Your task to perform on an android device: change the clock display to digital Image 0: 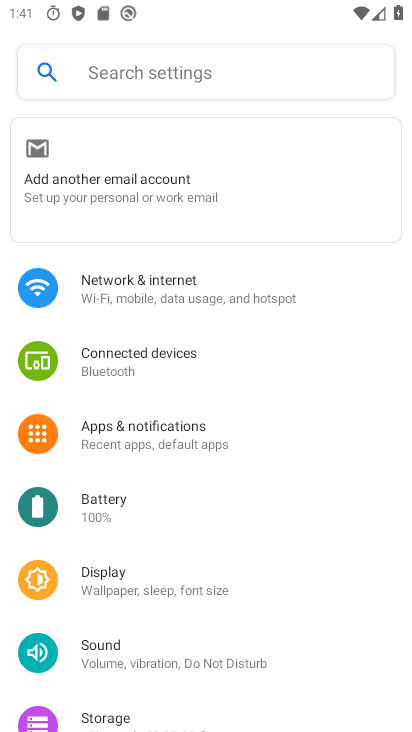
Step 0: press home button
Your task to perform on an android device: change the clock display to digital Image 1: 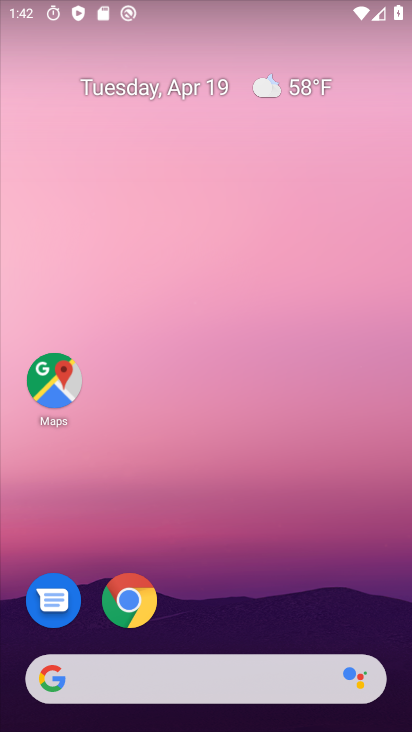
Step 1: drag from (276, 673) to (274, 291)
Your task to perform on an android device: change the clock display to digital Image 2: 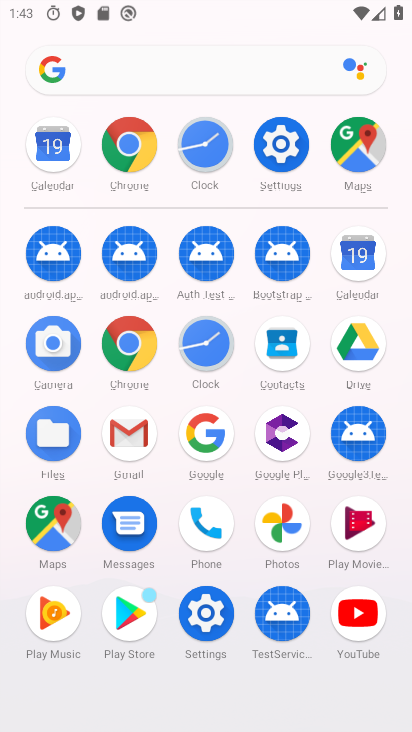
Step 2: click (215, 140)
Your task to perform on an android device: change the clock display to digital Image 3: 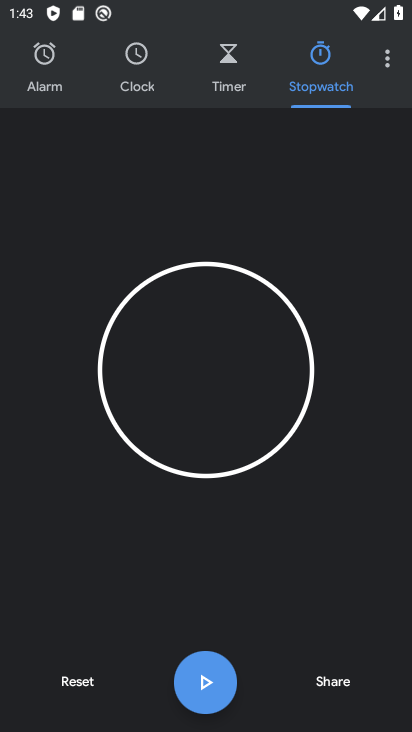
Step 3: click (402, 65)
Your task to perform on an android device: change the clock display to digital Image 4: 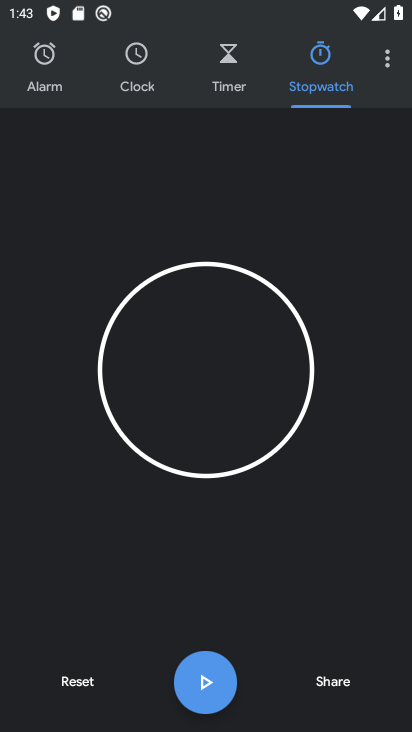
Step 4: click (391, 55)
Your task to perform on an android device: change the clock display to digital Image 5: 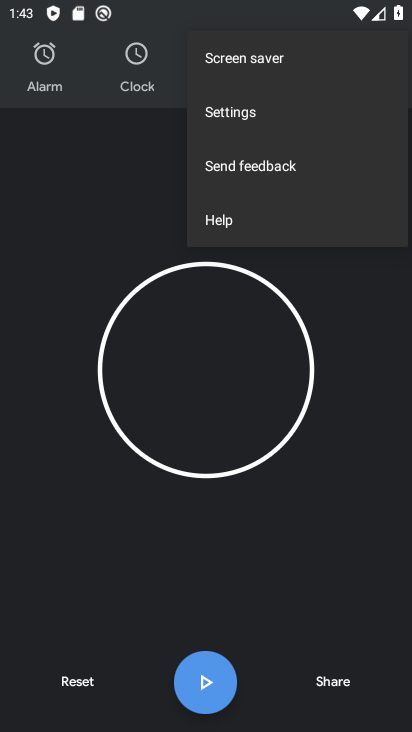
Step 5: click (234, 108)
Your task to perform on an android device: change the clock display to digital Image 6: 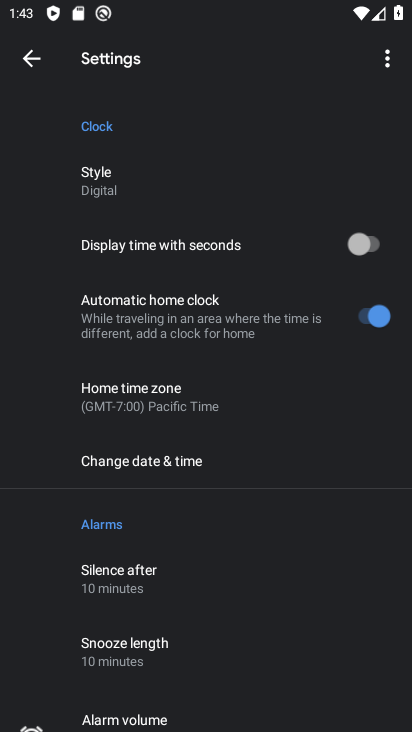
Step 6: click (132, 182)
Your task to perform on an android device: change the clock display to digital Image 7: 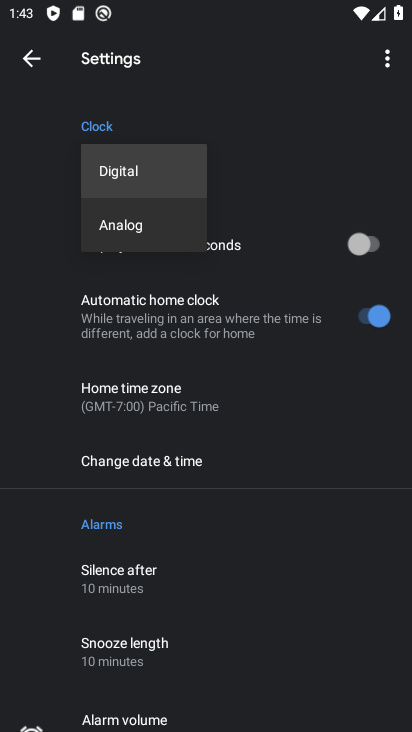
Step 7: click (134, 176)
Your task to perform on an android device: change the clock display to digital Image 8: 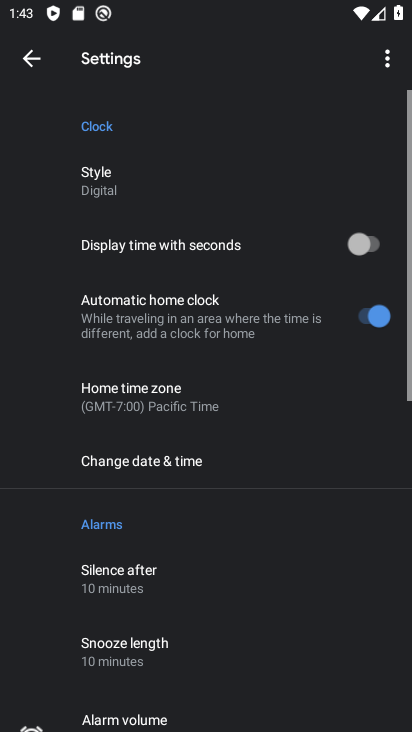
Step 8: task complete